Your task to perform on an android device: Do I have any events today? Image 0: 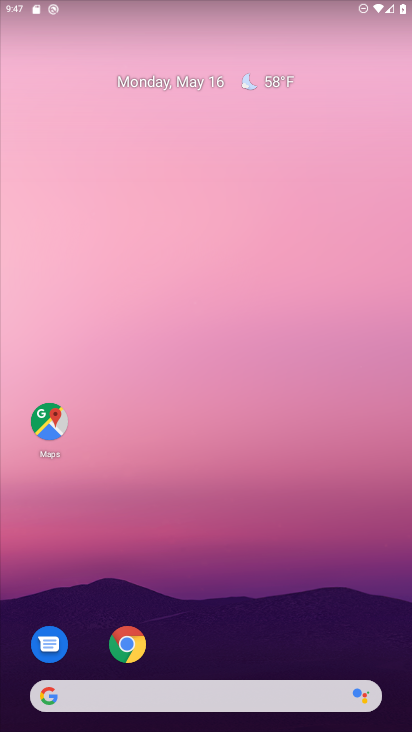
Step 0: drag from (232, 688) to (250, 408)
Your task to perform on an android device: Do I have any events today? Image 1: 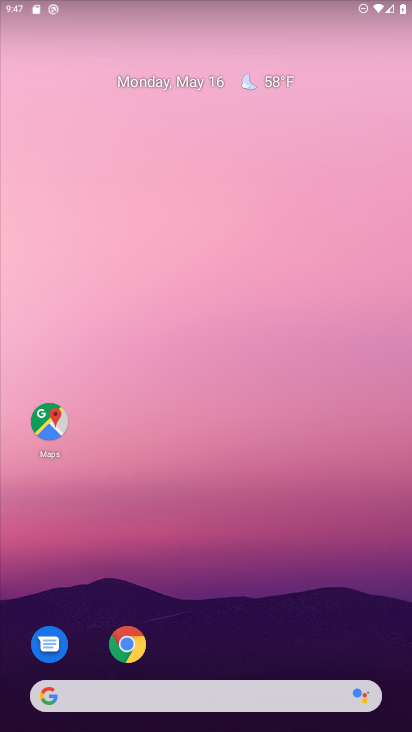
Step 1: drag from (211, 682) to (194, 22)
Your task to perform on an android device: Do I have any events today? Image 2: 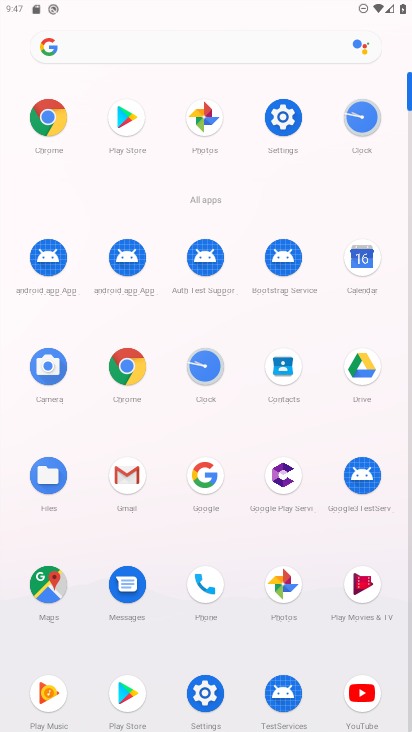
Step 2: click (362, 264)
Your task to perform on an android device: Do I have any events today? Image 3: 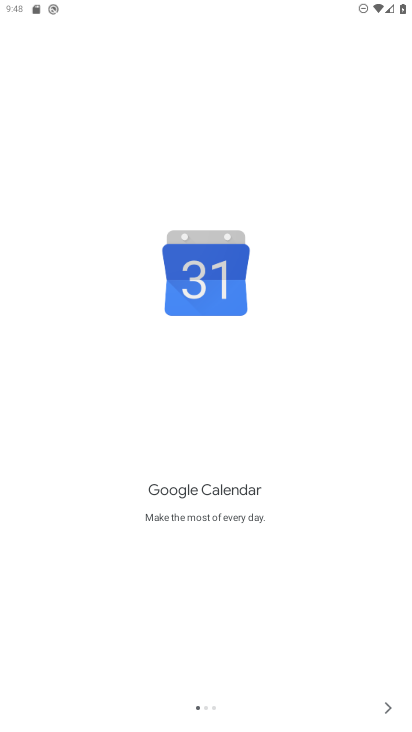
Step 3: click (383, 708)
Your task to perform on an android device: Do I have any events today? Image 4: 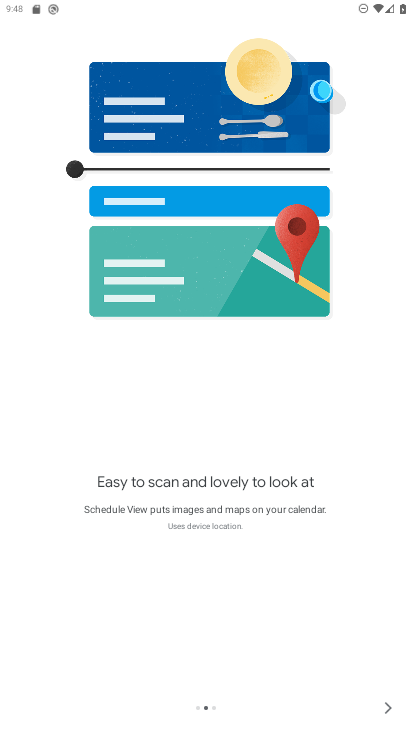
Step 4: click (383, 708)
Your task to perform on an android device: Do I have any events today? Image 5: 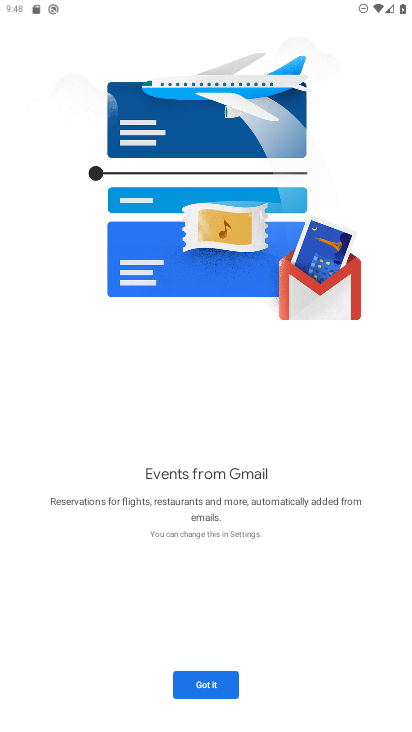
Step 5: click (183, 683)
Your task to perform on an android device: Do I have any events today? Image 6: 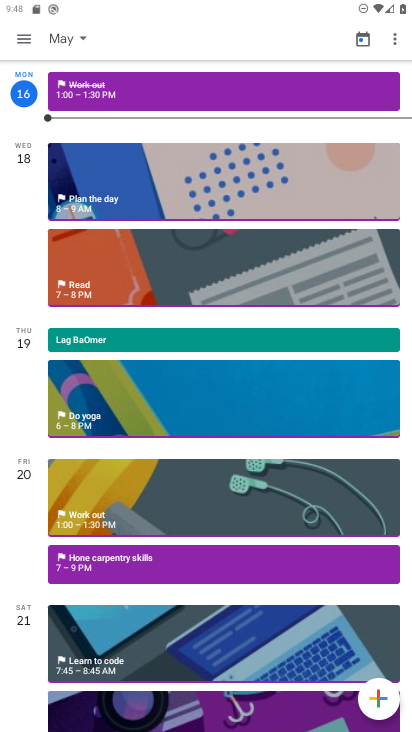
Step 6: click (22, 43)
Your task to perform on an android device: Do I have any events today? Image 7: 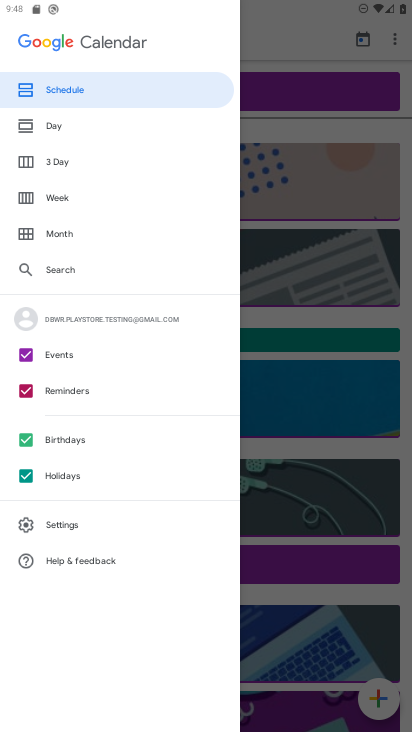
Step 7: click (90, 86)
Your task to perform on an android device: Do I have any events today? Image 8: 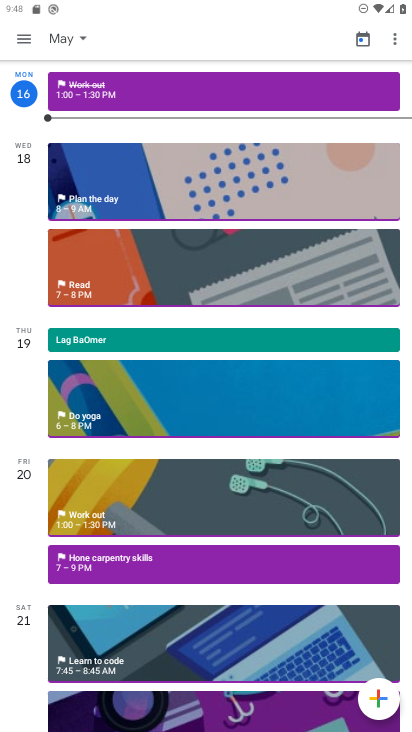
Step 8: task complete